Your task to perform on an android device: Search for "panasonic triple a" on walmart, select the first entry, and add it to the cart. Image 0: 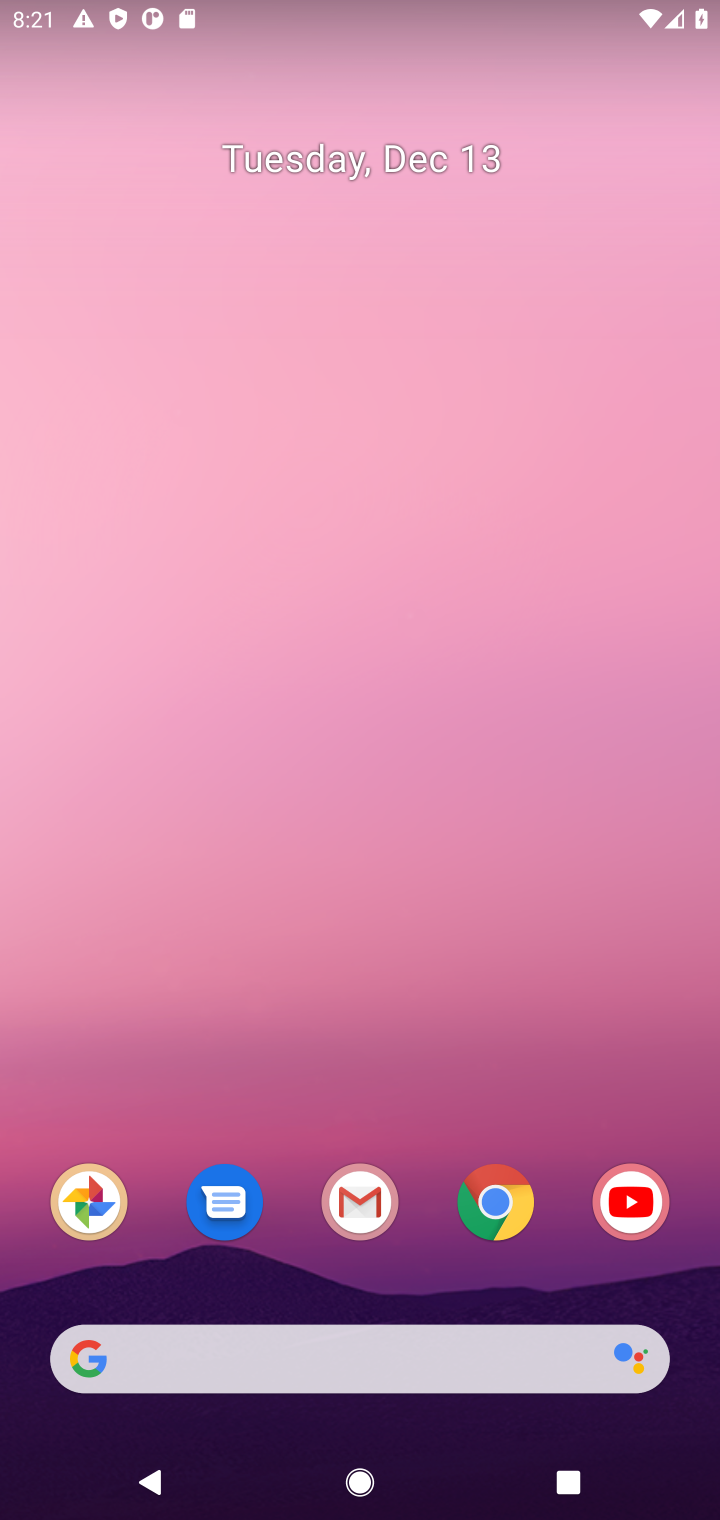
Step 0: click (508, 1206)
Your task to perform on an android device: Search for "panasonic triple a" on walmart, select the first entry, and add it to the cart. Image 1: 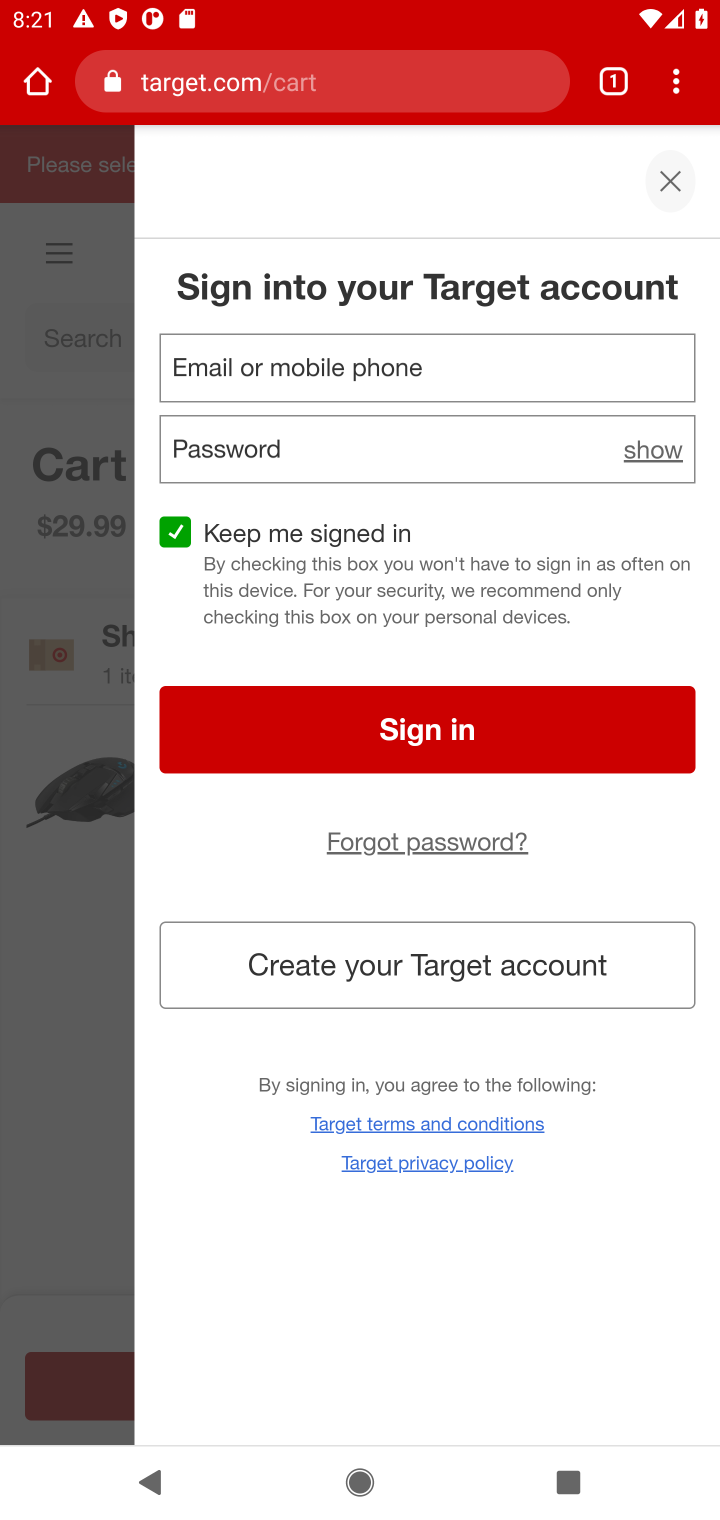
Step 1: click (383, 89)
Your task to perform on an android device: Search for "panasonic triple a" on walmart, select the first entry, and add it to the cart. Image 2: 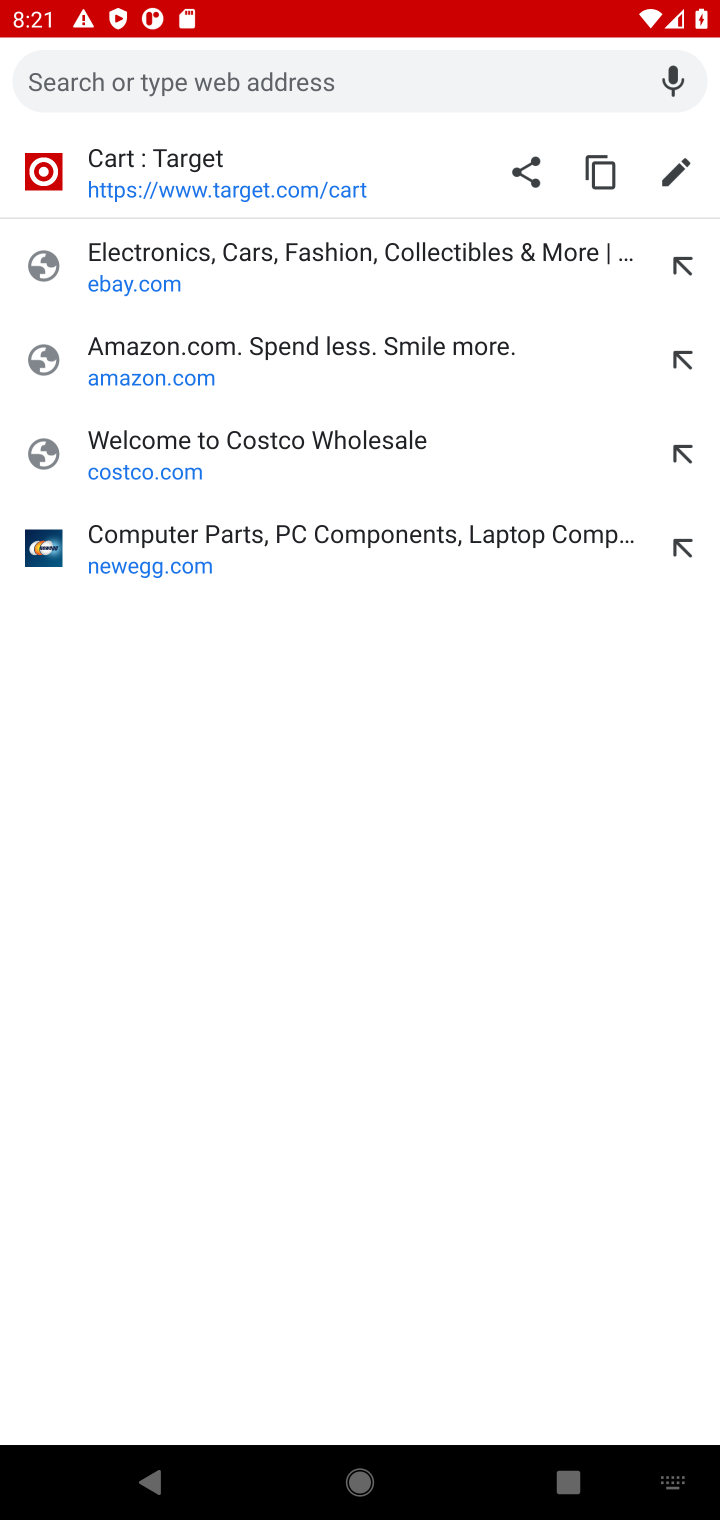
Step 2: type "walmart.com"
Your task to perform on an android device: Search for "panasonic triple a" on walmart, select the first entry, and add it to the cart. Image 3: 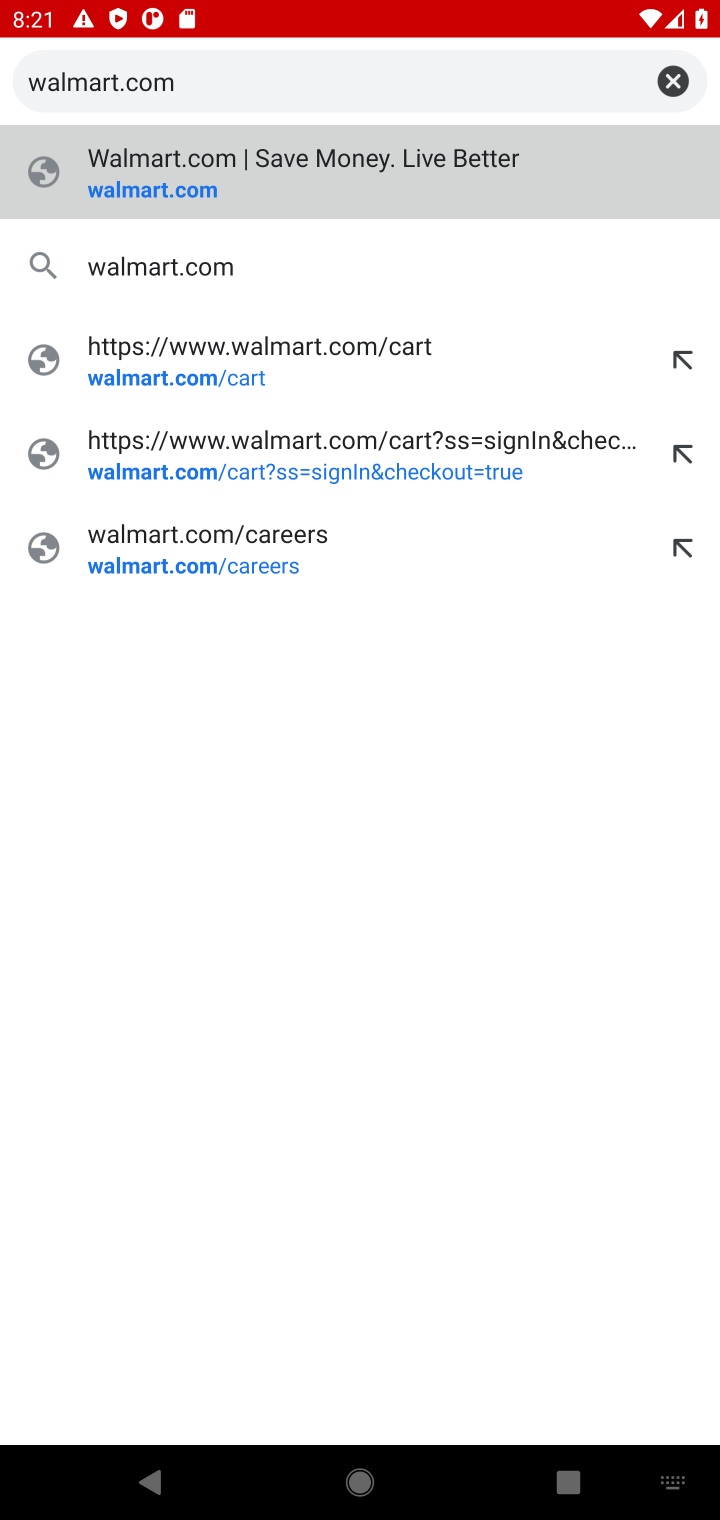
Step 3: click (147, 182)
Your task to perform on an android device: Search for "panasonic triple a" on walmart, select the first entry, and add it to the cart. Image 4: 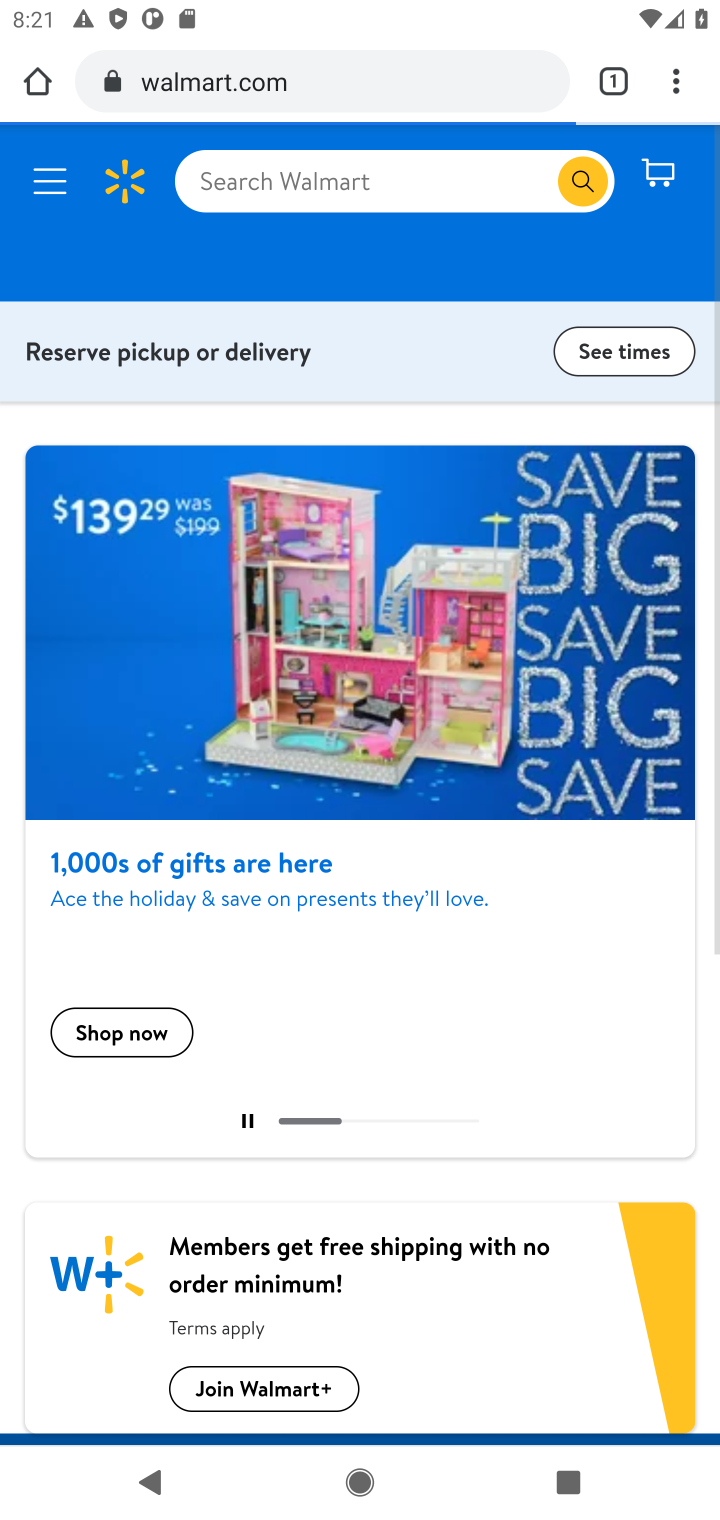
Step 4: click (400, 189)
Your task to perform on an android device: Search for "panasonic triple a" on walmart, select the first entry, and add it to the cart. Image 5: 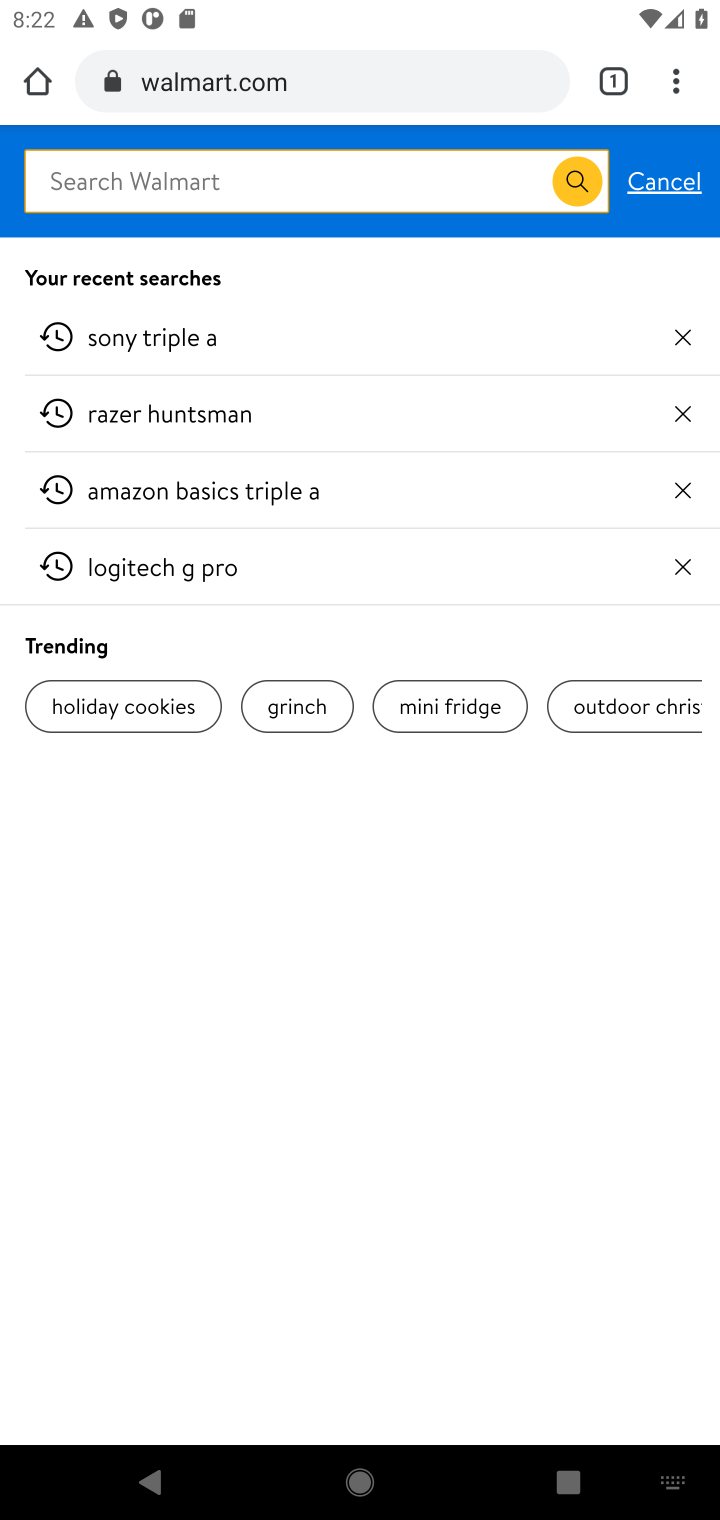
Step 5: type "panasonic triple a"
Your task to perform on an android device: Search for "panasonic triple a" on walmart, select the first entry, and add it to the cart. Image 6: 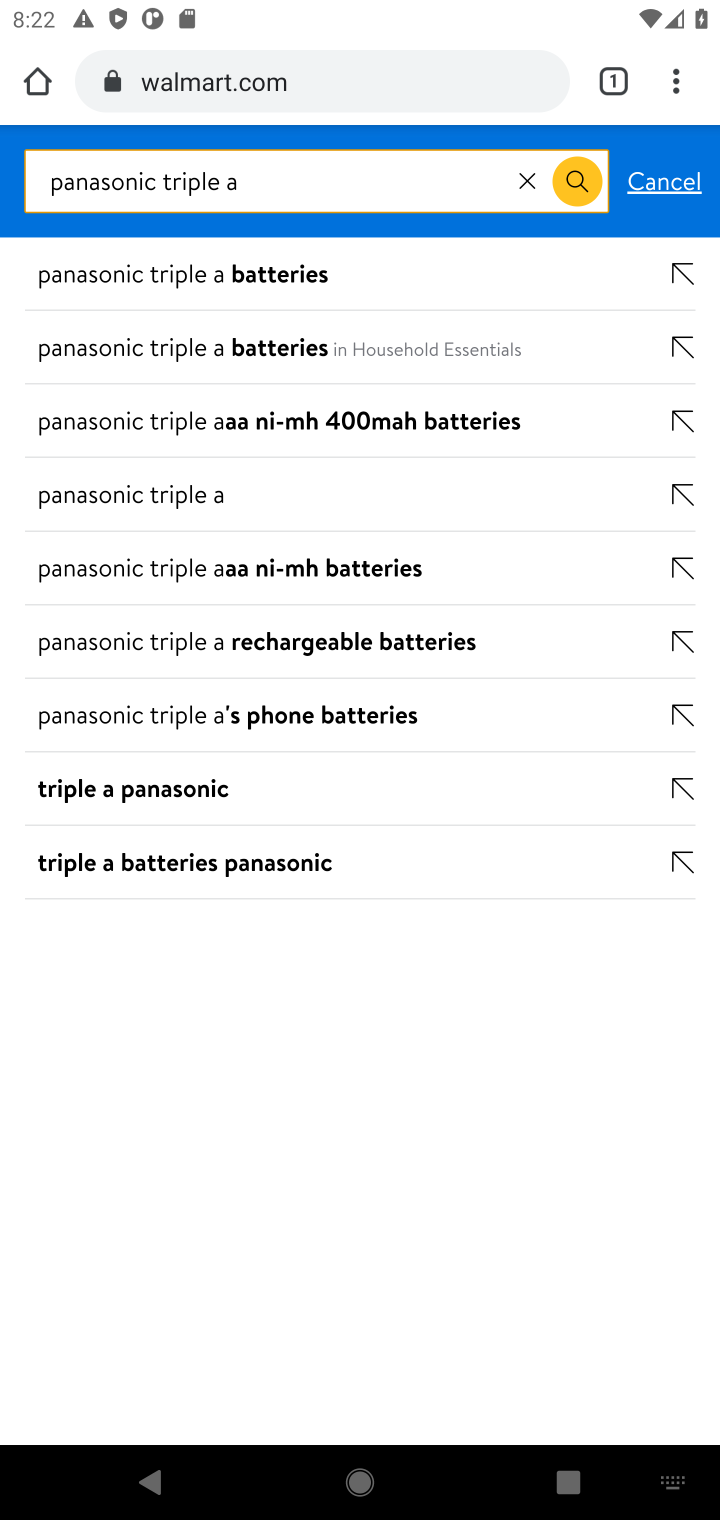
Step 6: click (571, 189)
Your task to perform on an android device: Search for "panasonic triple a" on walmart, select the first entry, and add it to the cart. Image 7: 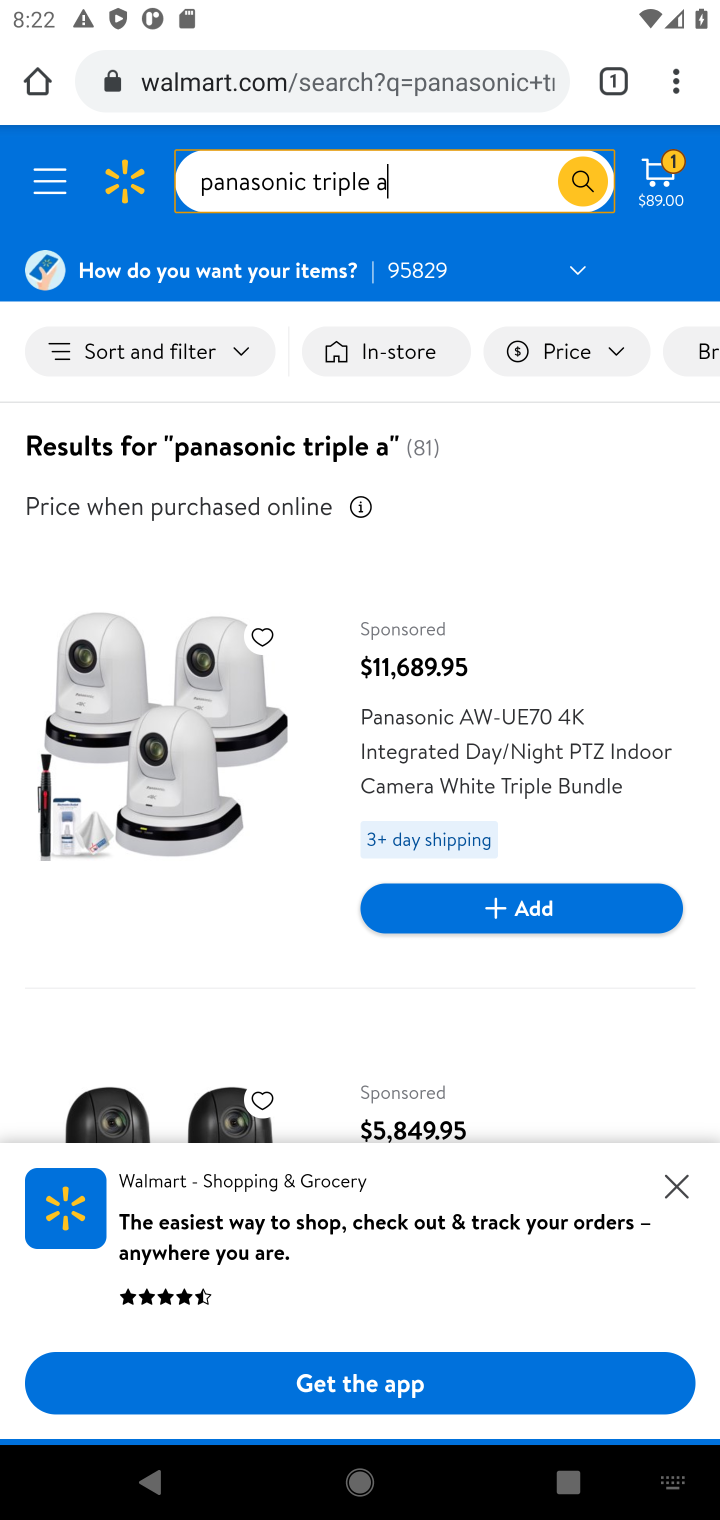
Step 7: task complete